Your task to perform on an android device: toggle improve location accuracy Image 0: 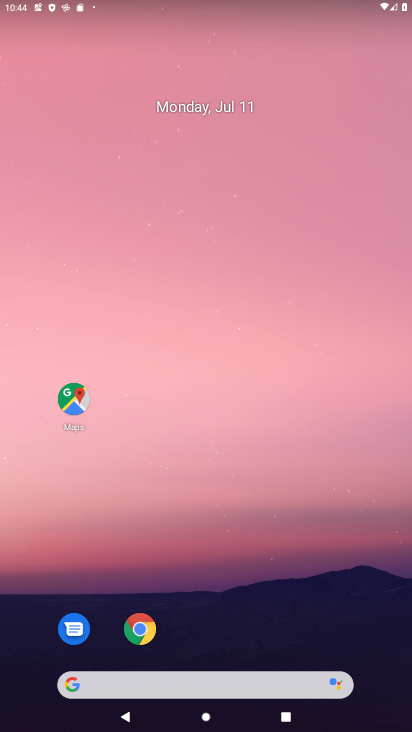
Step 0: drag from (260, 633) to (236, 43)
Your task to perform on an android device: toggle improve location accuracy Image 1: 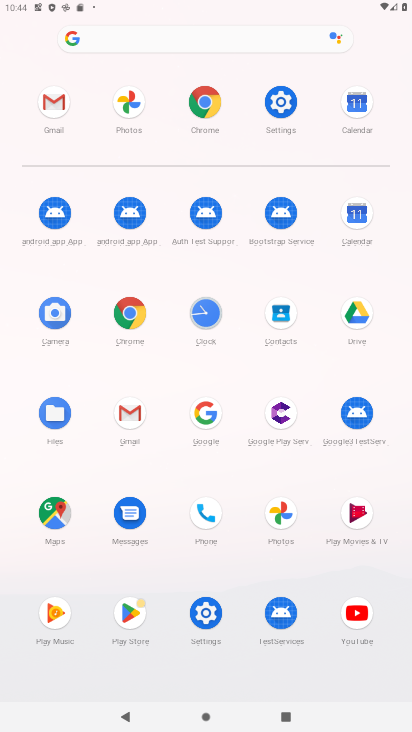
Step 1: click (284, 97)
Your task to perform on an android device: toggle improve location accuracy Image 2: 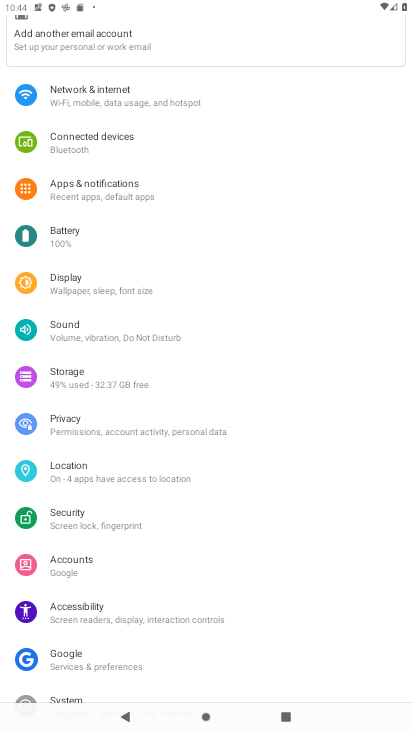
Step 2: click (103, 478)
Your task to perform on an android device: toggle improve location accuracy Image 3: 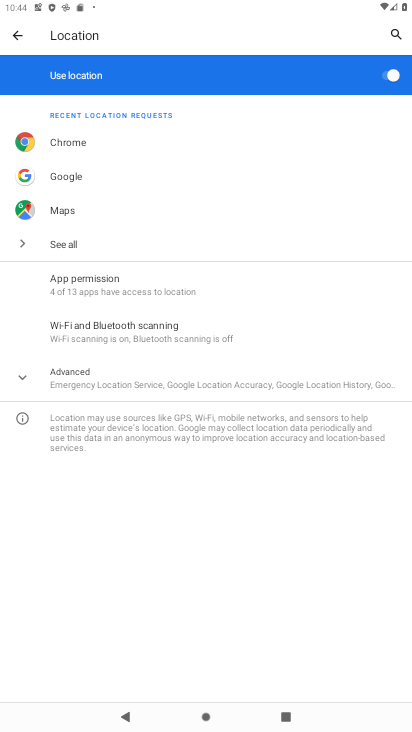
Step 3: click (149, 371)
Your task to perform on an android device: toggle improve location accuracy Image 4: 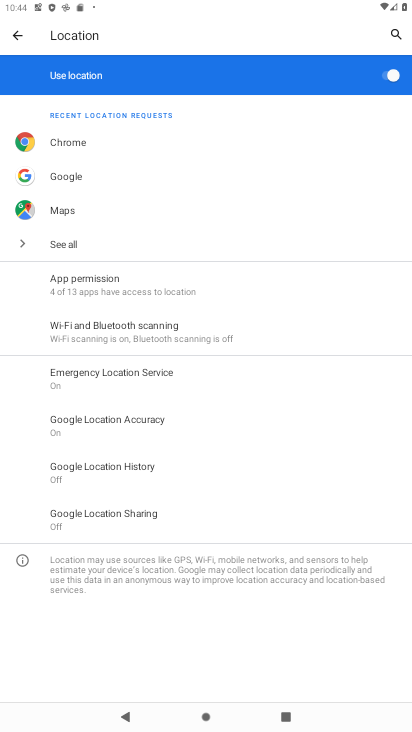
Step 4: click (131, 422)
Your task to perform on an android device: toggle improve location accuracy Image 5: 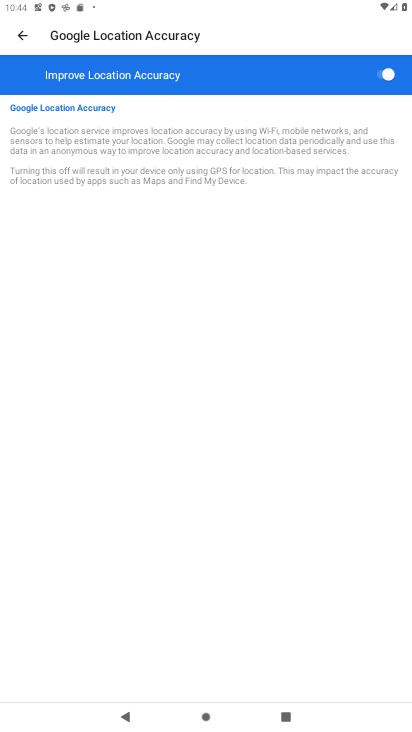
Step 5: click (378, 93)
Your task to perform on an android device: toggle improve location accuracy Image 6: 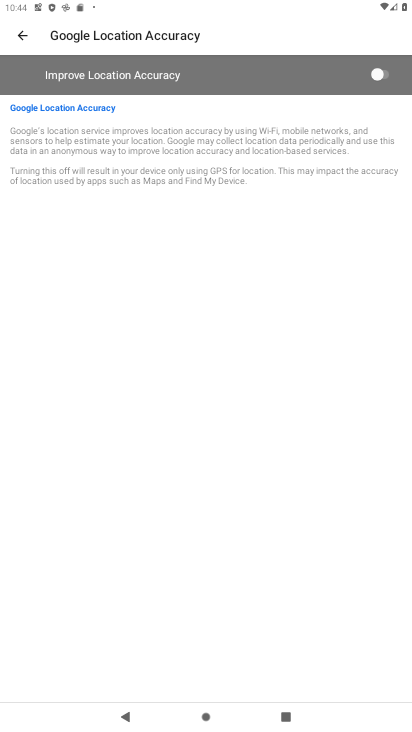
Step 6: task complete